Your task to perform on an android device: turn off picture-in-picture Image 0: 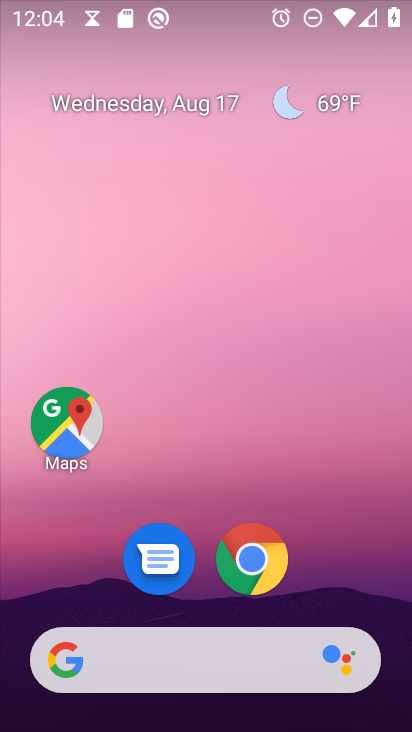
Step 0: click (251, 564)
Your task to perform on an android device: turn off picture-in-picture Image 1: 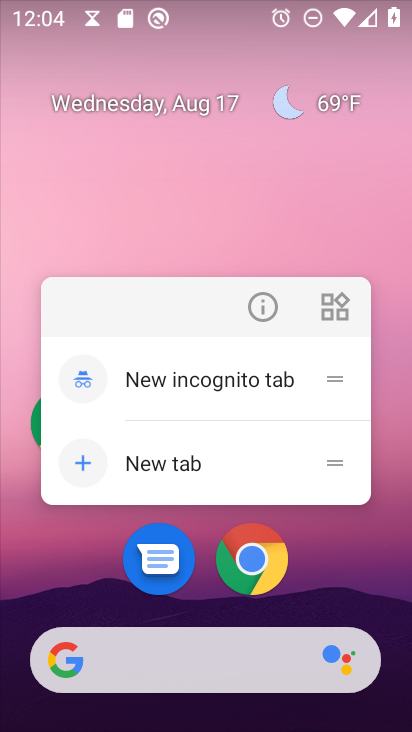
Step 1: click (262, 307)
Your task to perform on an android device: turn off picture-in-picture Image 2: 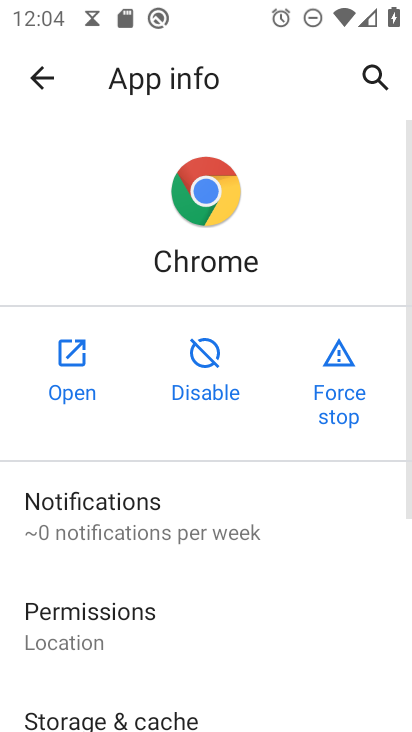
Step 2: drag from (188, 606) to (234, 485)
Your task to perform on an android device: turn off picture-in-picture Image 3: 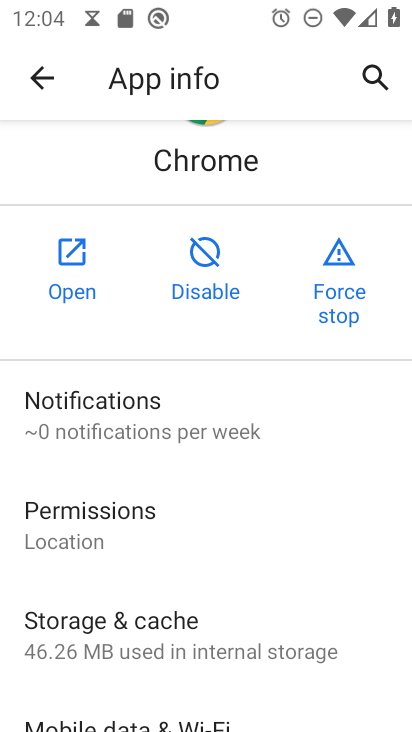
Step 3: drag from (215, 609) to (244, 519)
Your task to perform on an android device: turn off picture-in-picture Image 4: 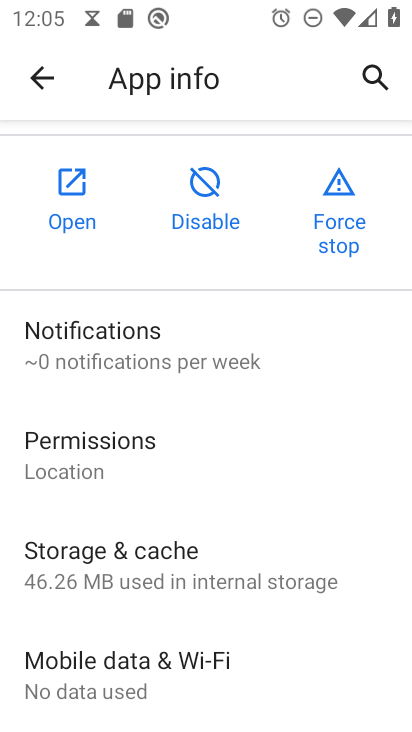
Step 4: drag from (256, 643) to (305, 512)
Your task to perform on an android device: turn off picture-in-picture Image 5: 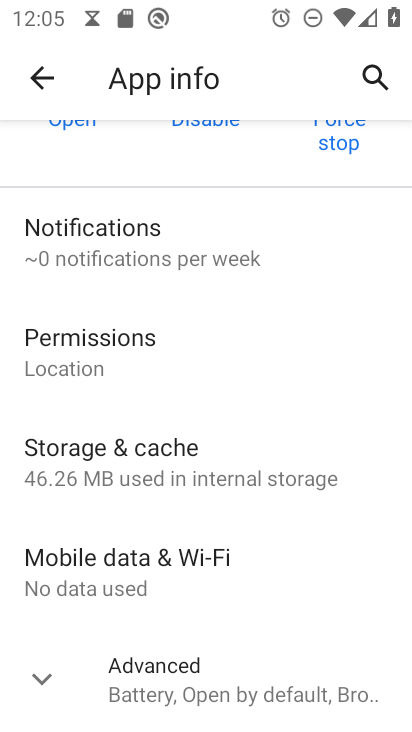
Step 5: click (233, 685)
Your task to perform on an android device: turn off picture-in-picture Image 6: 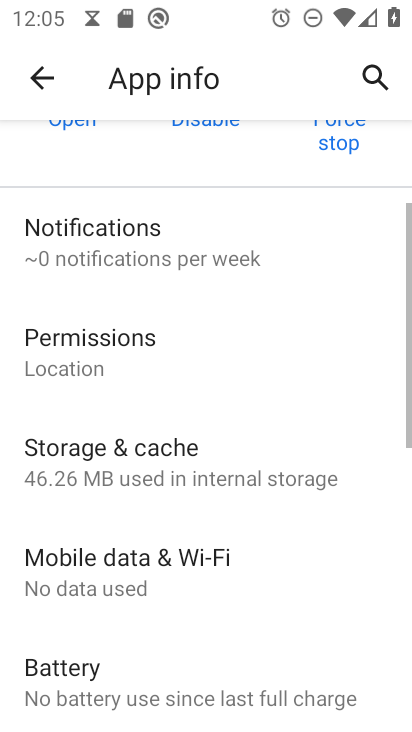
Step 6: drag from (233, 685) to (260, 470)
Your task to perform on an android device: turn off picture-in-picture Image 7: 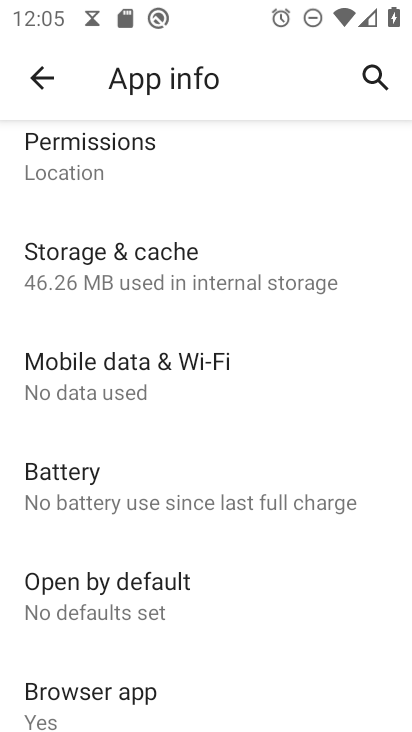
Step 7: drag from (234, 691) to (263, 514)
Your task to perform on an android device: turn off picture-in-picture Image 8: 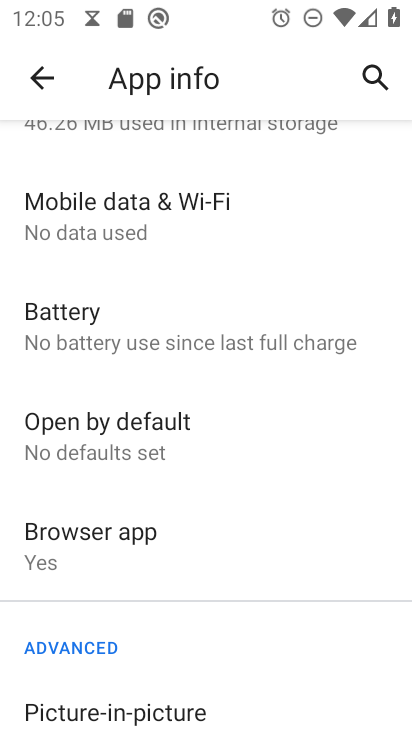
Step 8: drag from (165, 676) to (251, 538)
Your task to perform on an android device: turn off picture-in-picture Image 9: 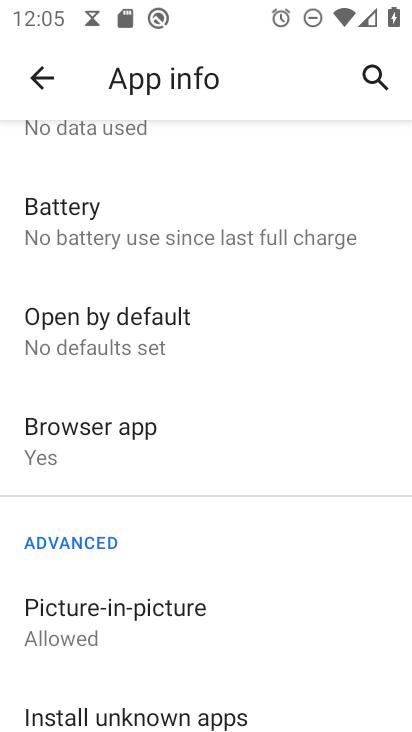
Step 9: click (185, 612)
Your task to perform on an android device: turn off picture-in-picture Image 10: 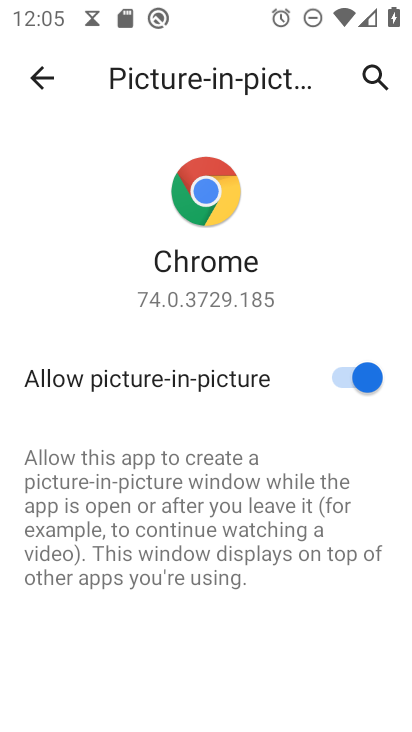
Step 10: click (354, 389)
Your task to perform on an android device: turn off picture-in-picture Image 11: 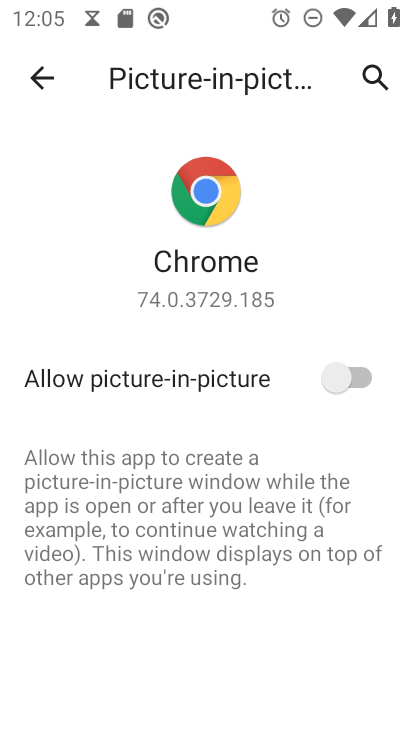
Step 11: task complete